Your task to perform on an android device: Do I have any events tomorrow? Image 0: 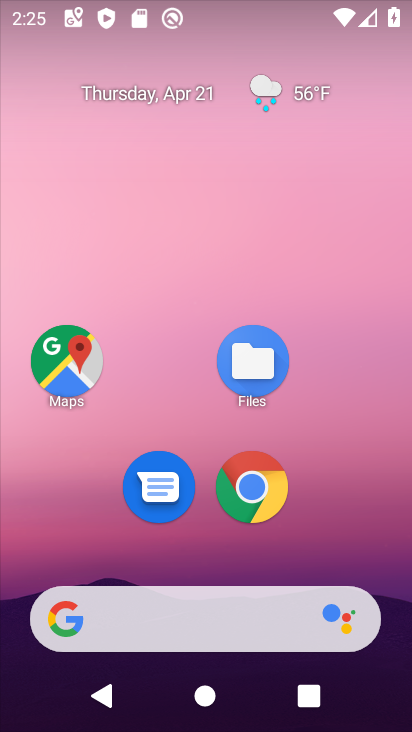
Step 0: drag from (387, 559) to (364, 86)
Your task to perform on an android device: Do I have any events tomorrow? Image 1: 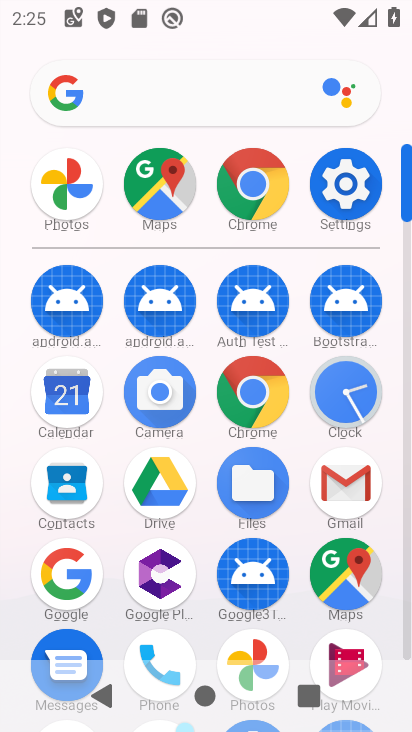
Step 1: click (61, 399)
Your task to perform on an android device: Do I have any events tomorrow? Image 2: 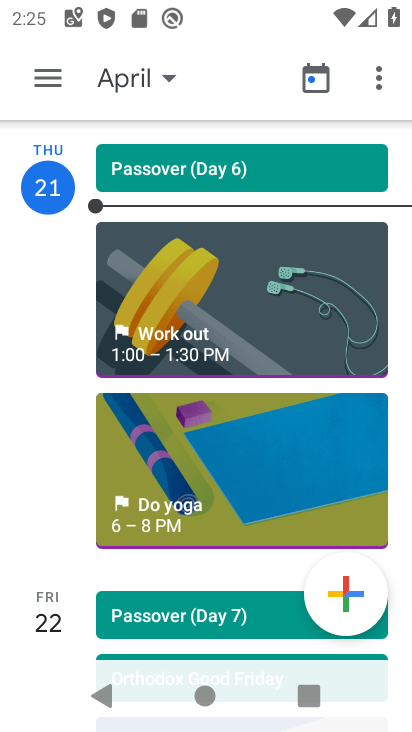
Step 2: click (127, 89)
Your task to perform on an android device: Do I have any events tomorrow? Image 3: 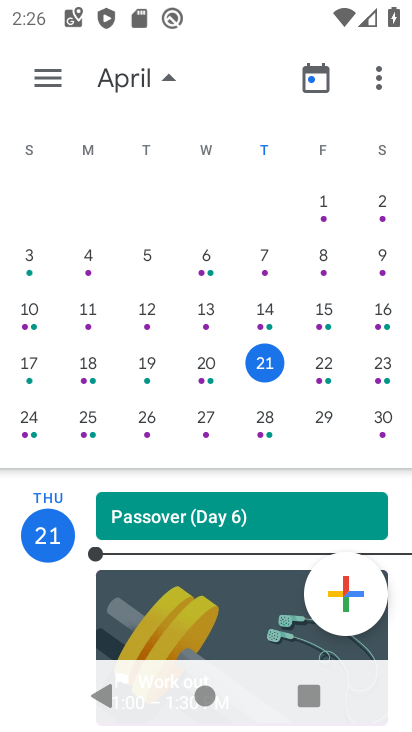
Step 3: click (332, 364)
Your task to perform on an android device: Do I have any events tomorrow? Image 4: 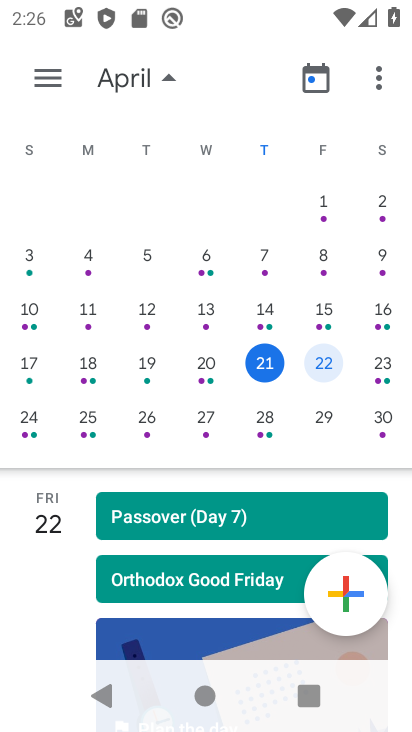
Step 4: task complete